Your task to perform on an android device: Open accessibility settings Image 0: 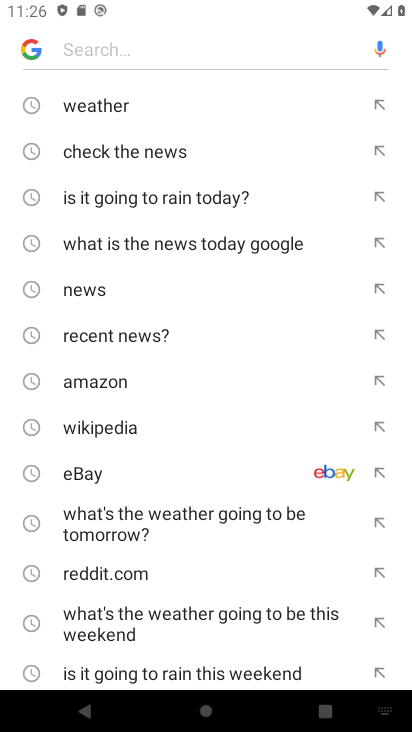
Step 0: press home button
Your task to perform on an android device: Open accessibility settings Image 1: 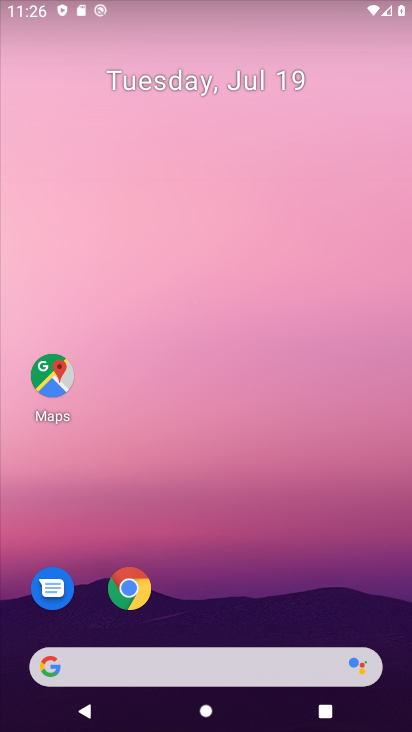
Step 1: drag from (384, 661) to (189, 59)
Your task to perform on an android device: Open accessibility settings Image 2: 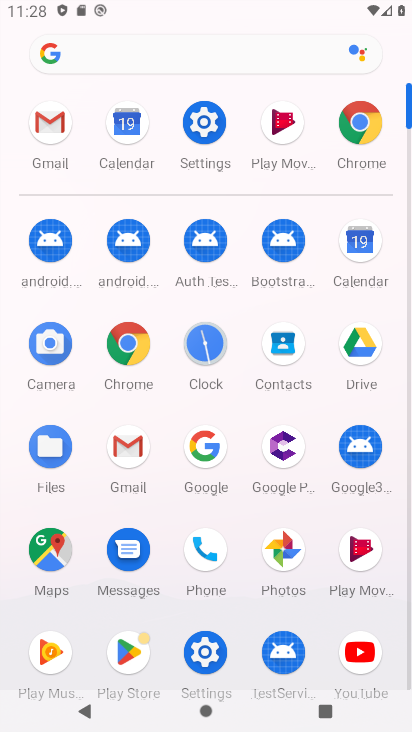
Step 2: click (205, 666)
Your task to perform on an android device: Open accessibility settings Image 3: 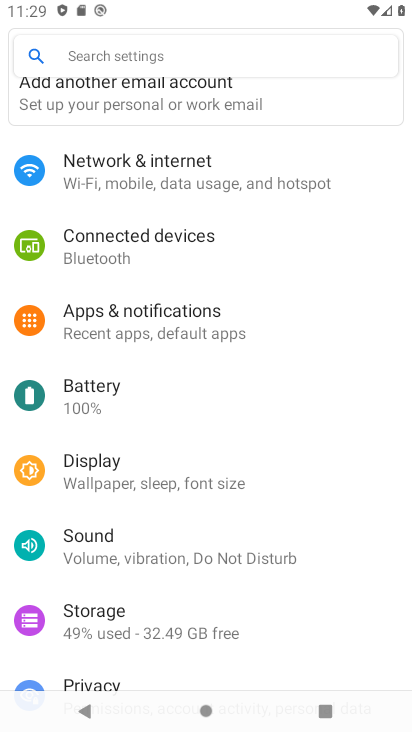
Step 3: drag from (124, 627) to (164, 175)
Your task to perform on an android device: Open accessibility settings Image 4: 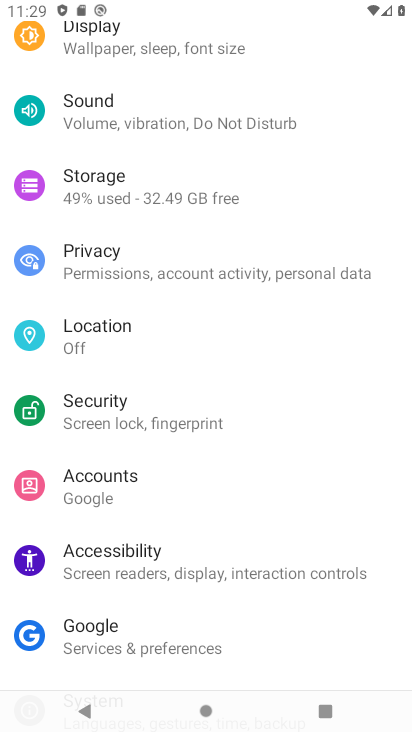
Step 4: click (105, 561)
Your task to perform on an android device: Open accessibility settings Image 5: 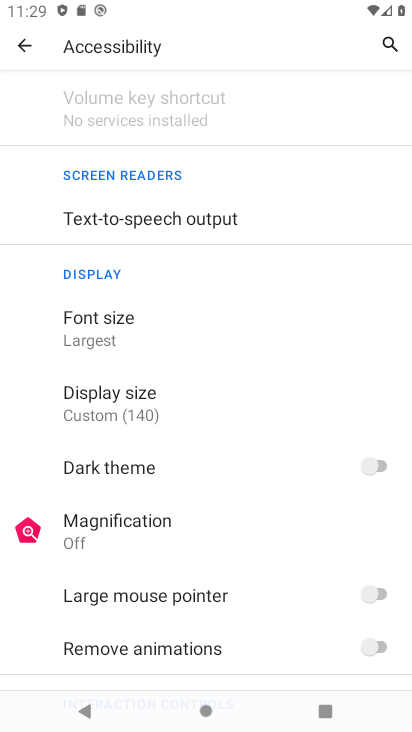
Step 5: task complete